Your task to perform on an android device: Open Google Chrome and open the bookmarks view Image 0: 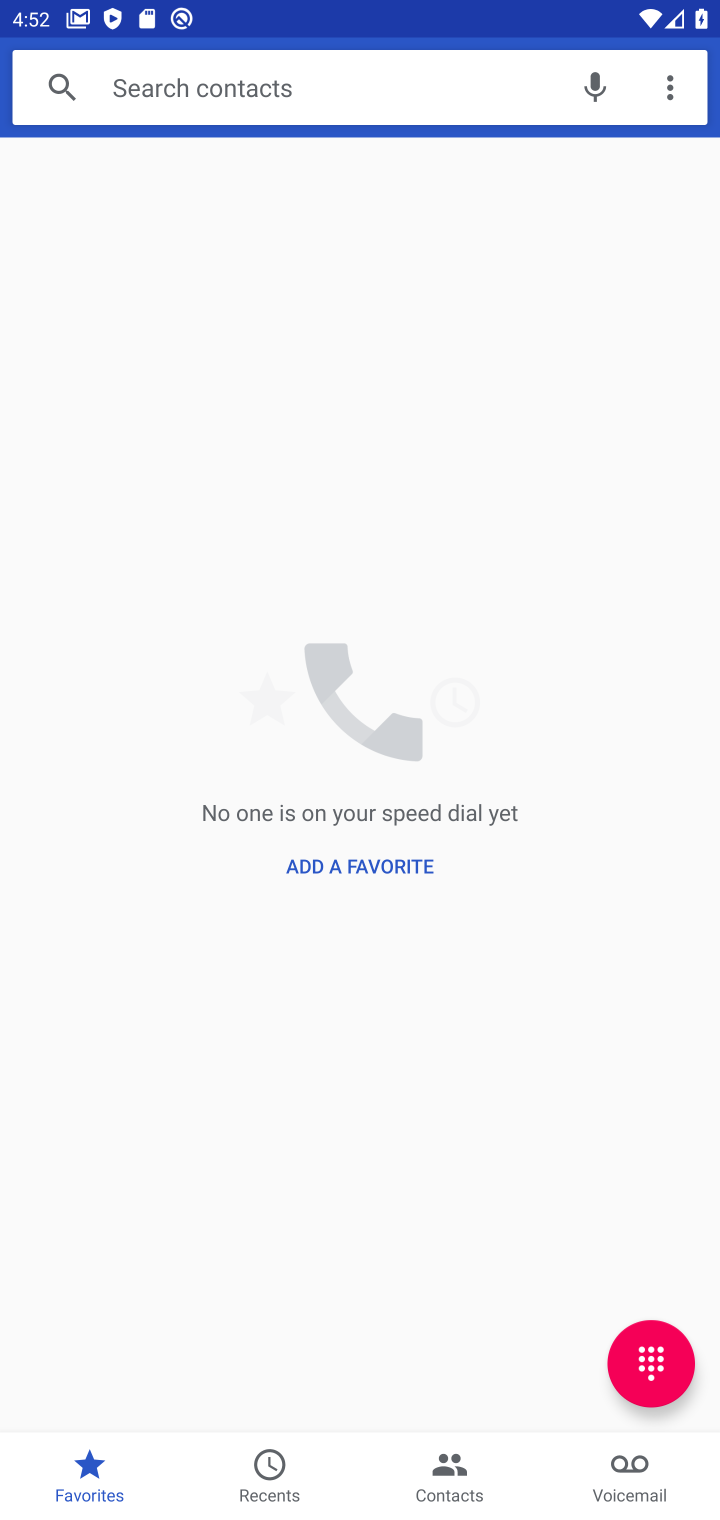
Step 0: press home button
Your task to perform on an android device: Open Google Chrome and open the bookmarks view Image 1: 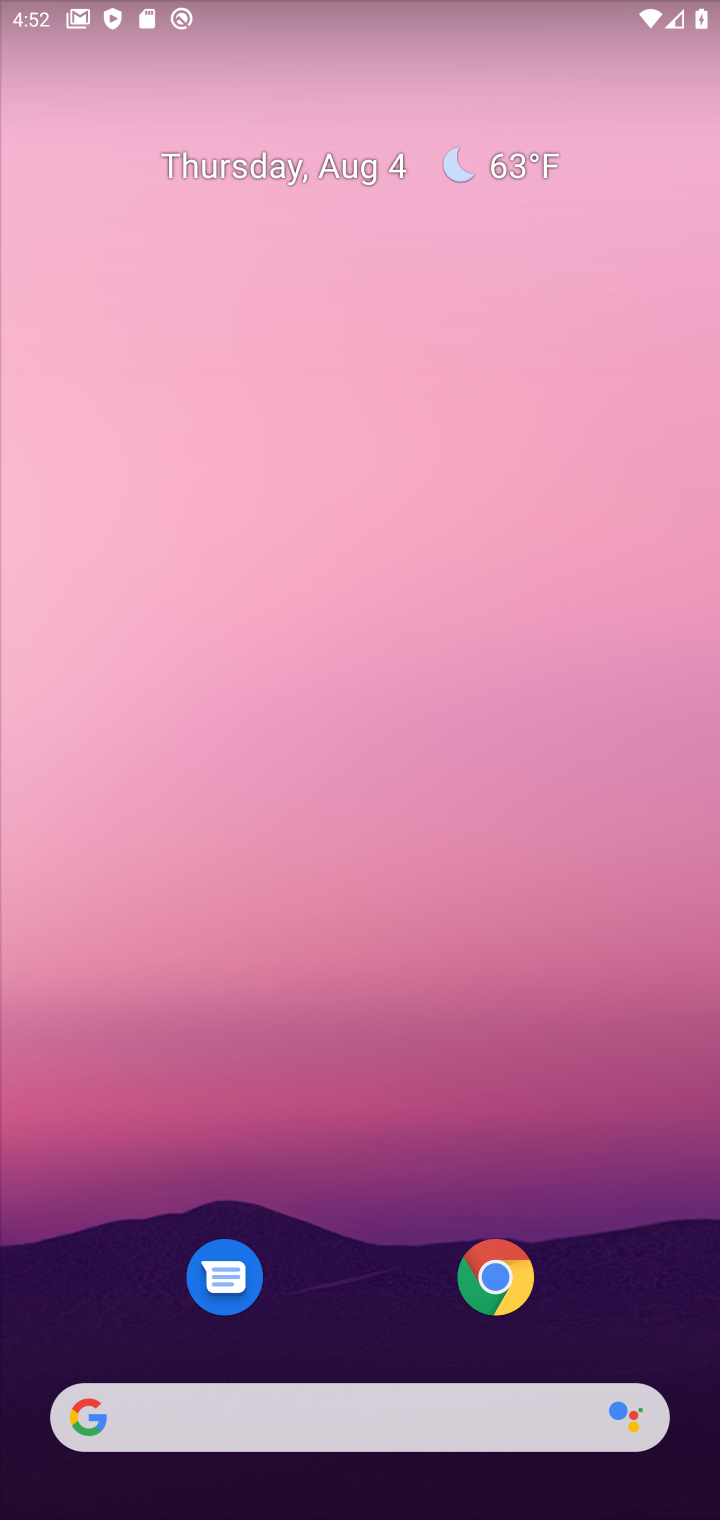
Step 1: drag from (445, 1355) to (635, 46)
Your task to perform on an android device: Open Google Chrome and open the bookmarks view Image 2: 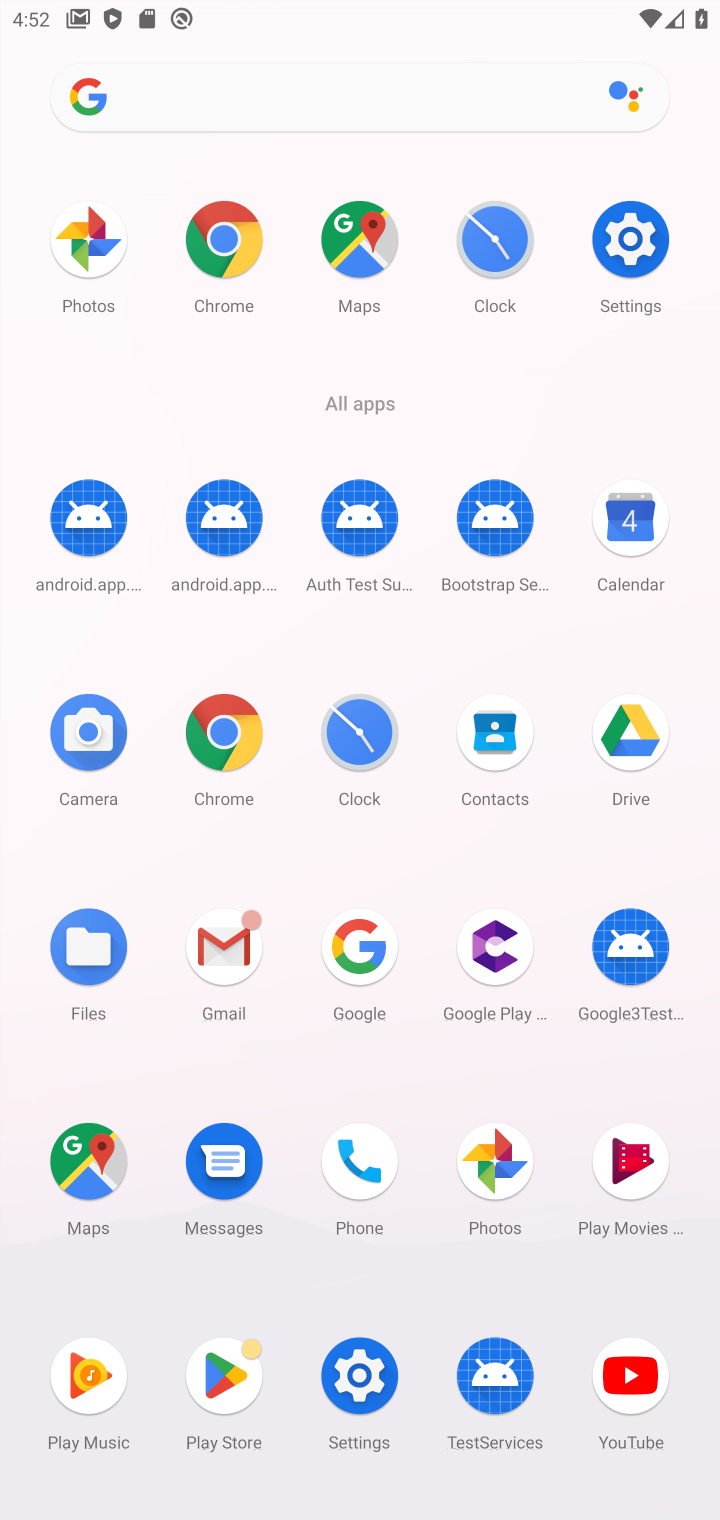
Step 2: click (226, 251)
Your task to perform on an android device: Open Google Chrome and open the bookmarks view Image 3: 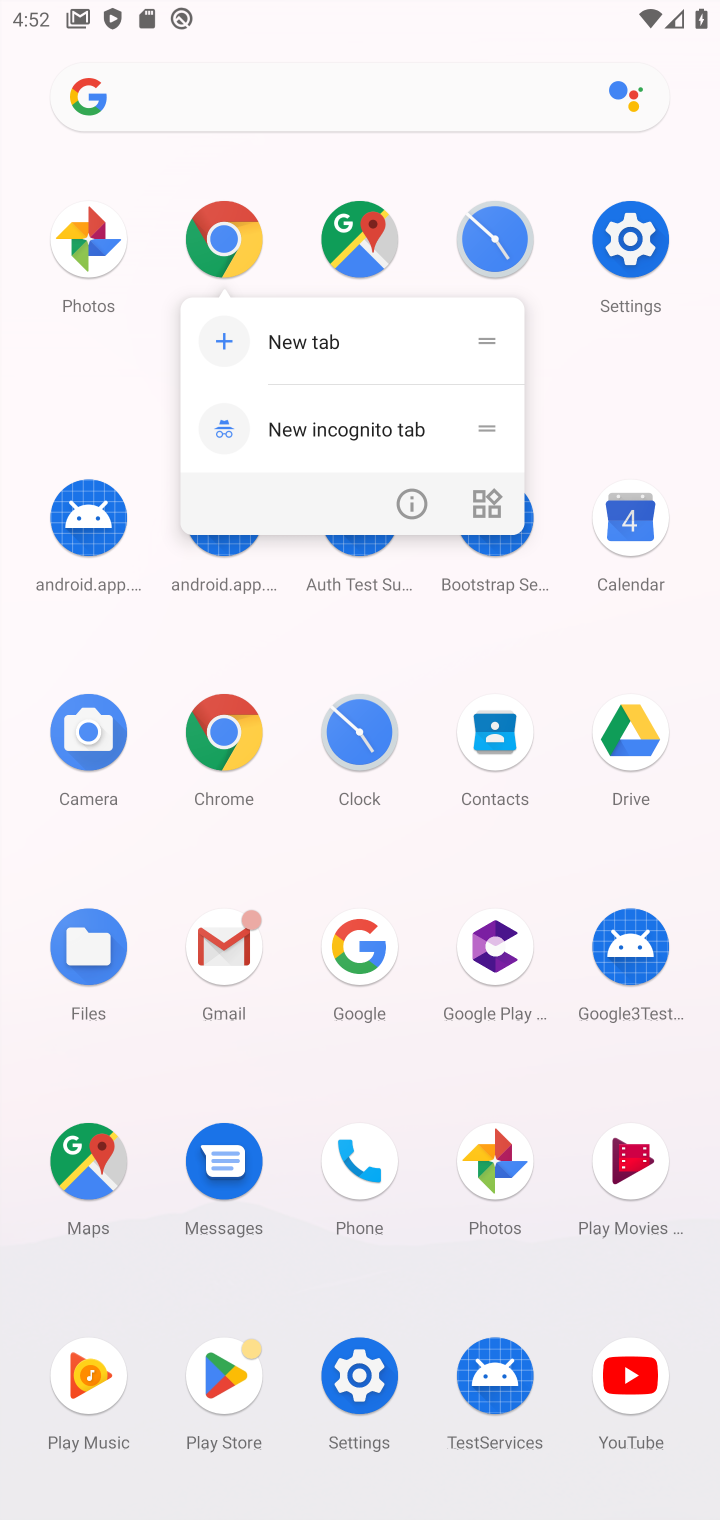
Step 3: click (226, 248)
Your task to perform on an android device: Open Google Chrome and open the bookmarks view Image 4: 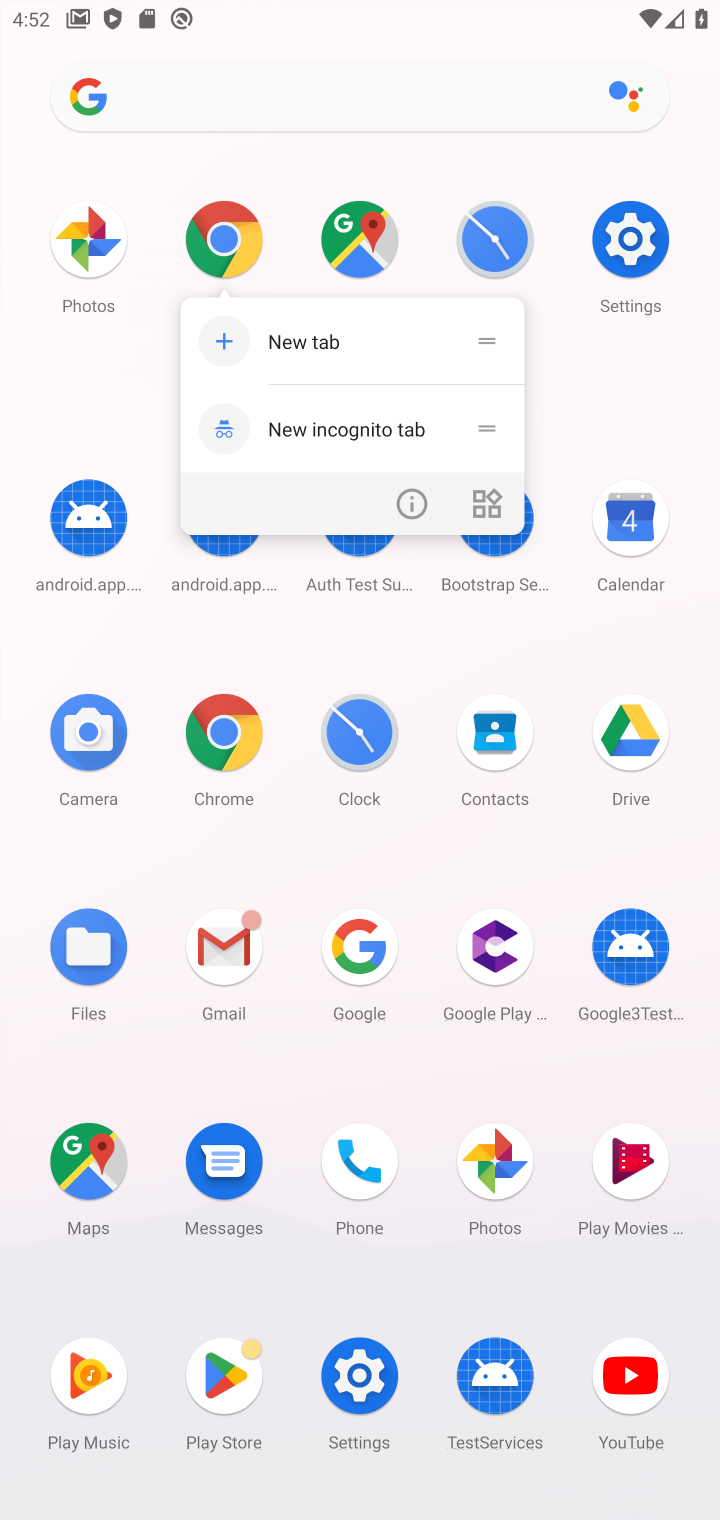
Step 4: click (226, 248)
Your task to perform on an android device: Open Google Chrome and open the bookmarks view Image 5: 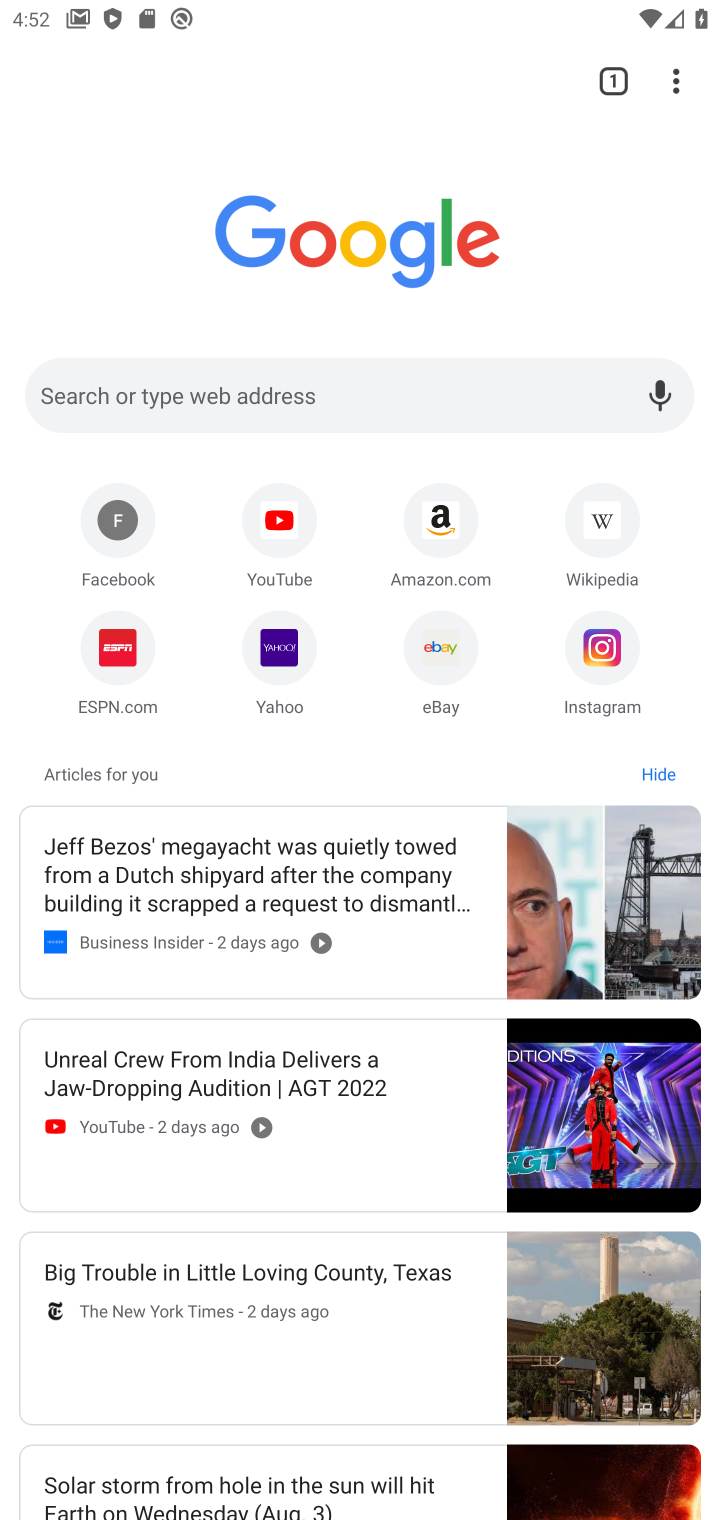
Step 5: drag from (677, 72) to (377, 326)
Your task to perform on an android device: Open Google Chrome and open the bookmarks view Image 6: 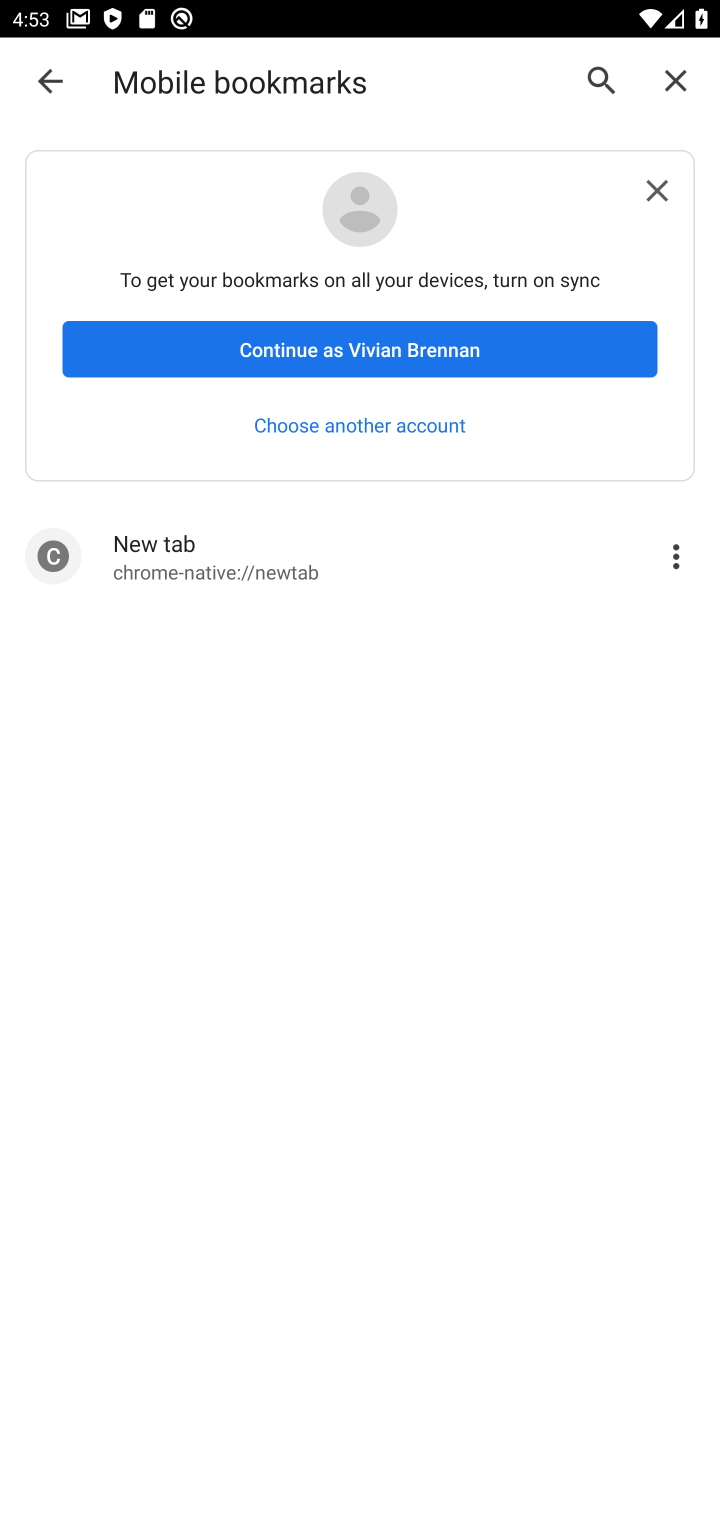
Step 6: click (417, 359)
Your task to perform on an android device: Open Google Chrome and open the bookmarks view Image 7: 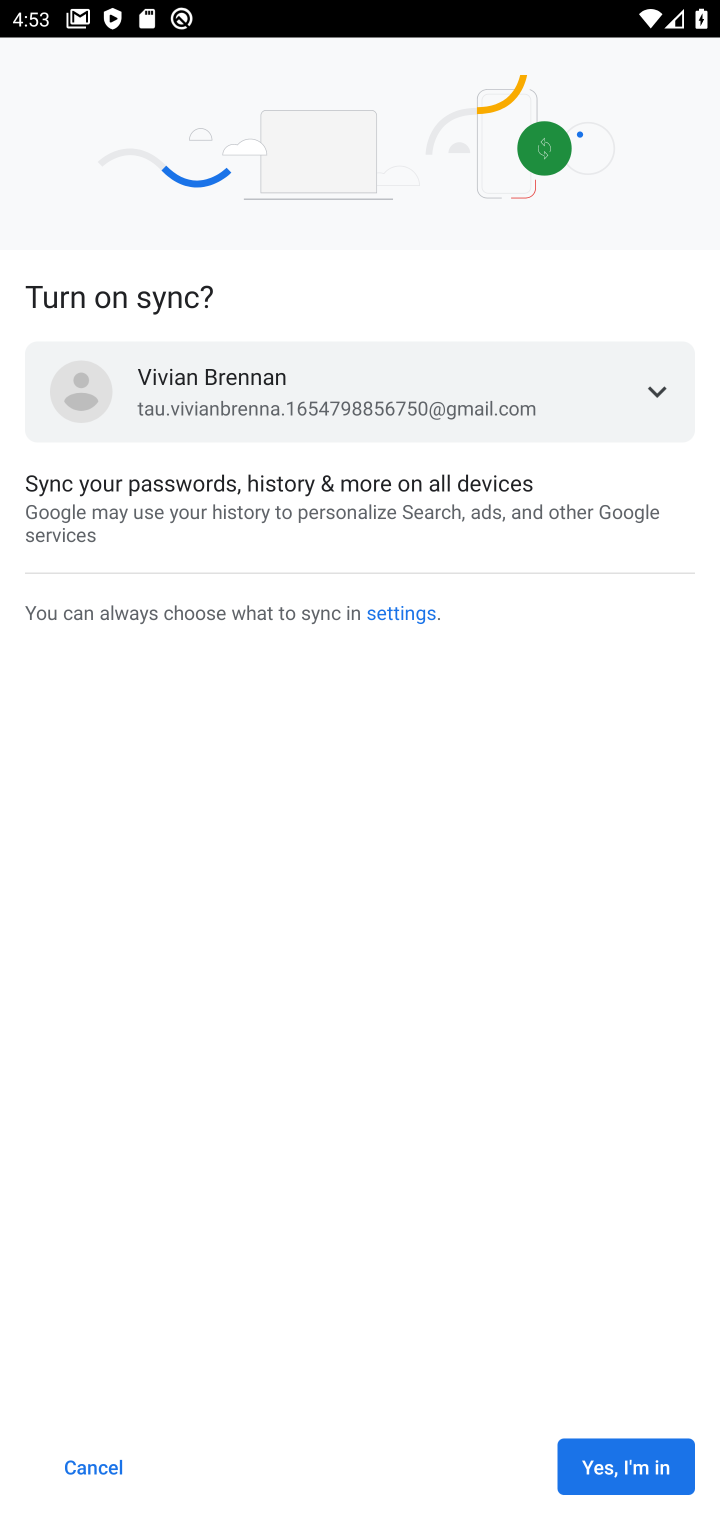
Step 7: click (646, 1461)
Your task to perform on an android device: Open Google Chrome and open the bookmarks view Image 8: 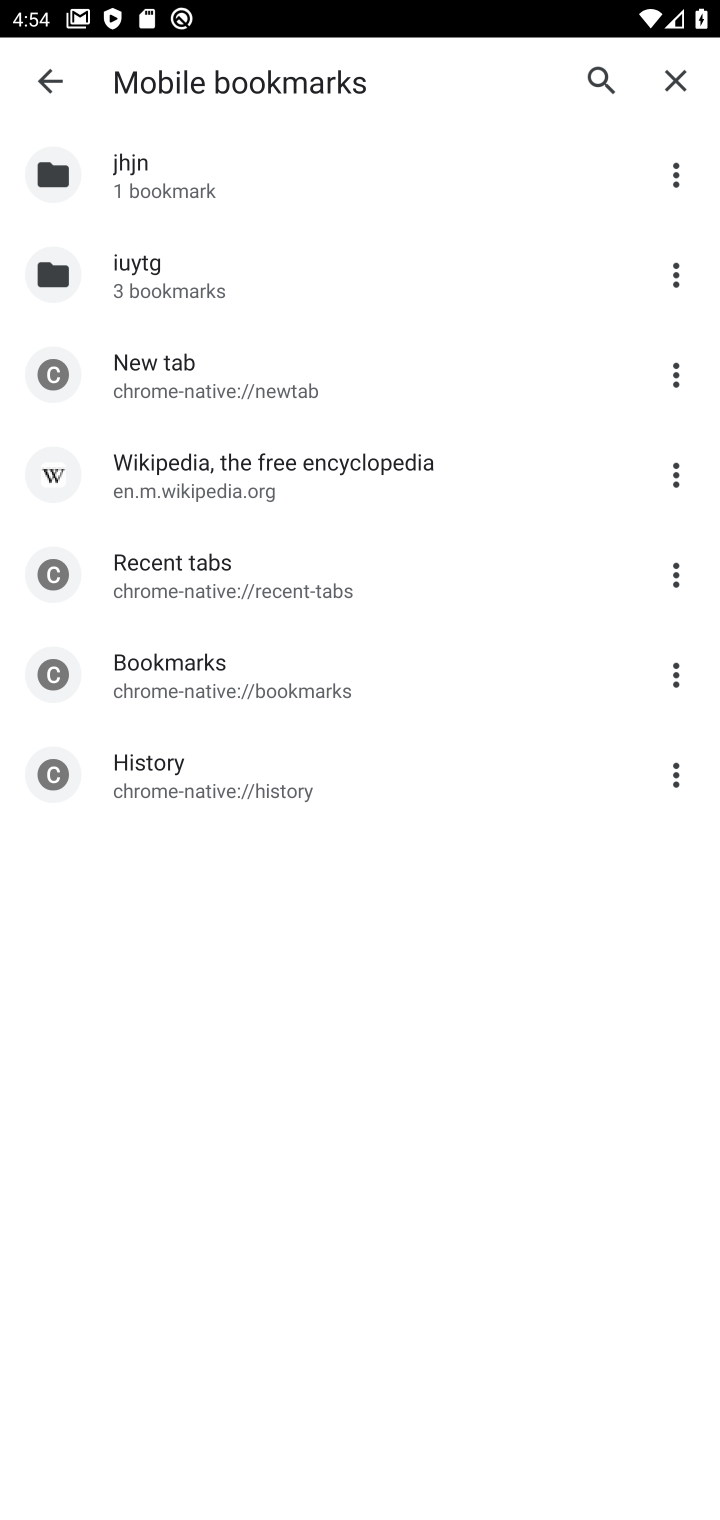
Step 8: task complete